Your task to perform on an android device: Open Google Image 0: 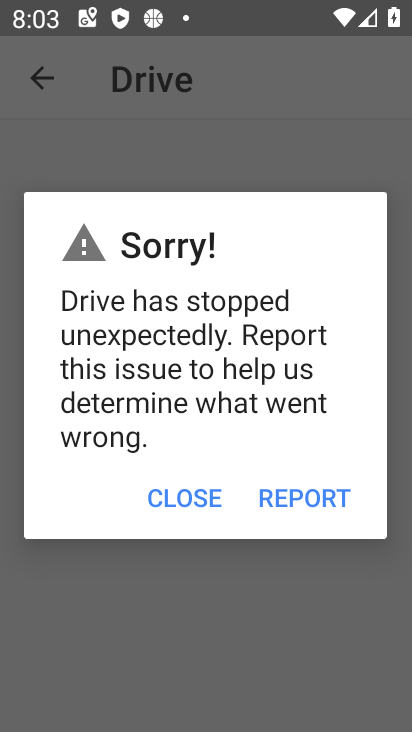
Step 0: press home button
Your task to perform on an android device: Open Google Image 1: 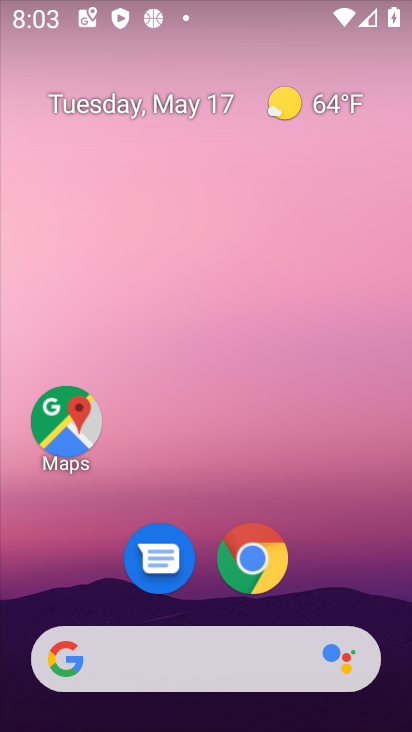
Step 1: drag from (223, 612) to (96, 31)
Your task to perform on an android device: Open Google Image 2: 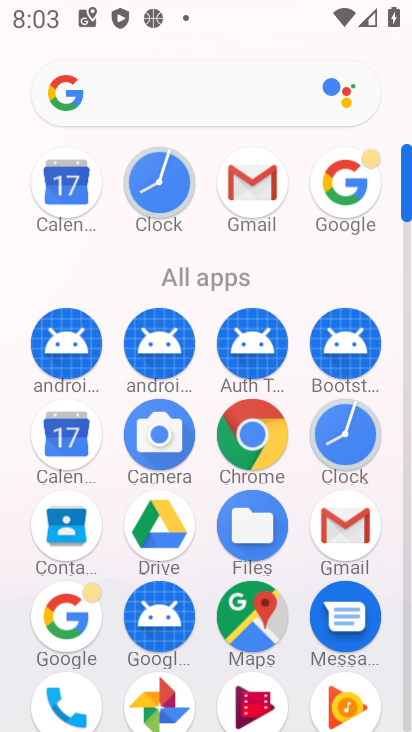
Step 2: click (66, 618)
Your task to perform on an android device: Open Google Image 3: 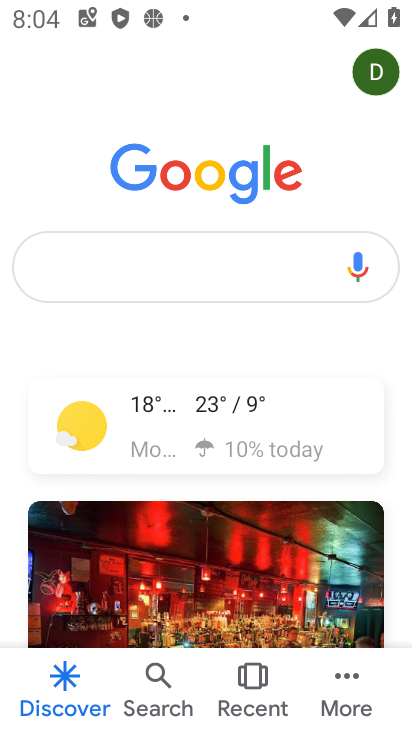
Step 3: task complete